Your task to perform on an android device: Open calendar and show me the fourth week of next month Image 0: 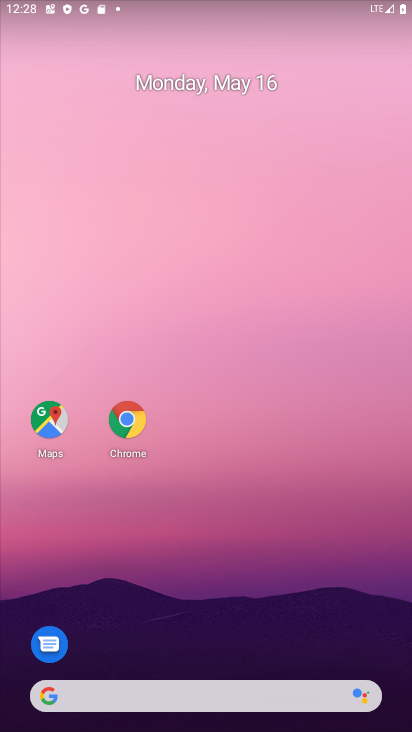
Step 0: drag from (187, 648) to (256, 180)
Your task to perform on an android device: Open calendar and show me the fourth week of next month Image 1: 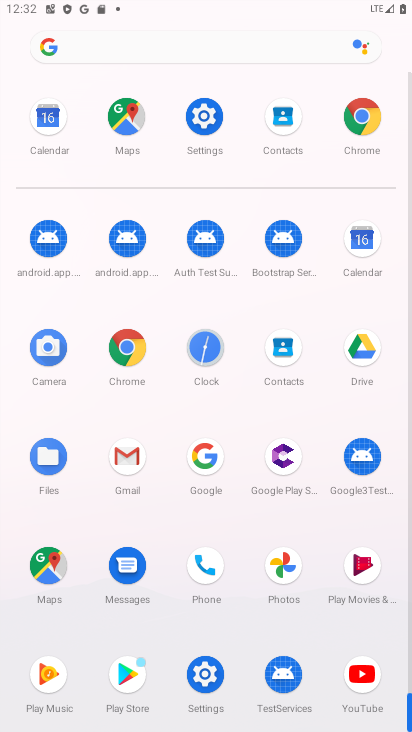
Step 1: click (366, 232)
Your task to perform on an android device: Open calendar and show me the fourth week of next month Image 2: 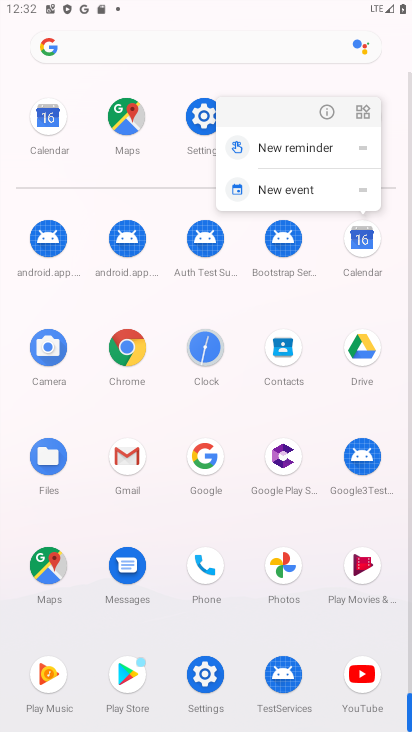
Step 2: click (329, 103)
Your task to perform on an android device: Open calendar and show me the fourth week of next month Image 3: 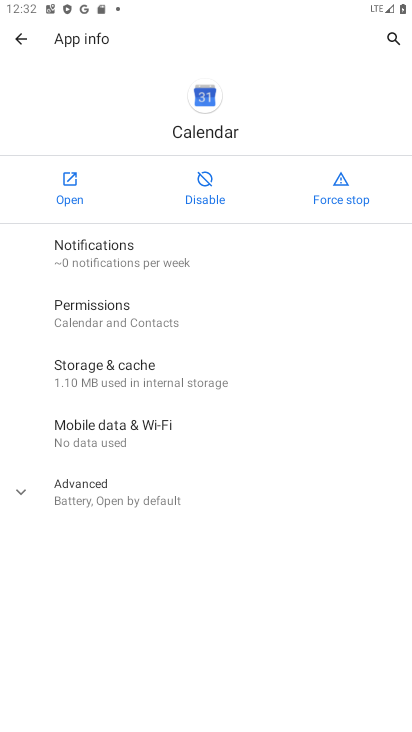
Step 3: click (59, 190)
Your task to perform on an android device: Open calendar and show me the fourth week of next month Image 4: 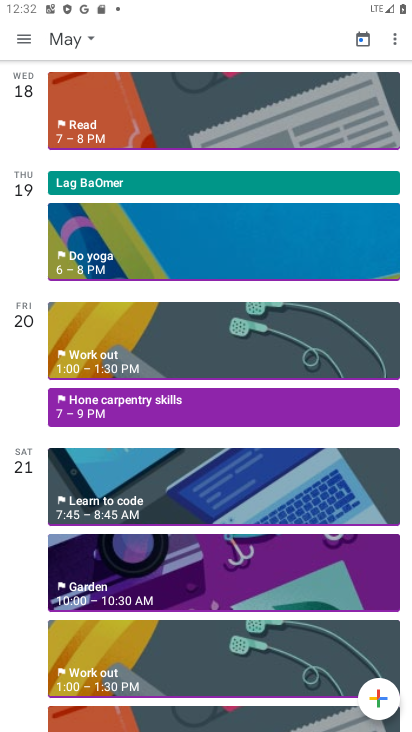
Step 4: click (83, 30)
Your task to perform on an android device: Open calendar and show me the fourth week of next month Image 5: 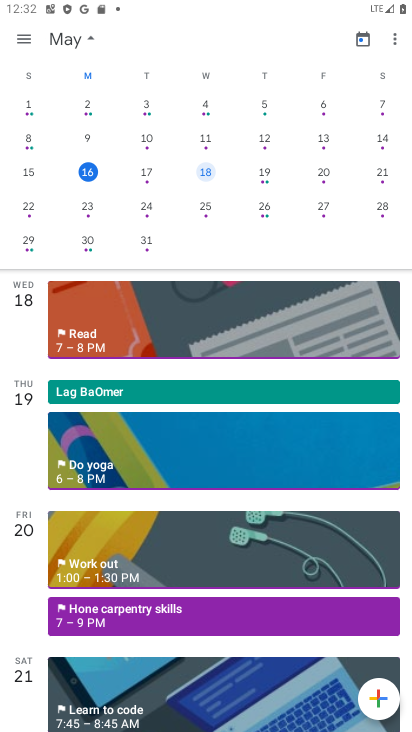
Step 5: drag from (382, 111) to (161, 140)
Your task to perform on an android device: Open calendar and show me the fourth week of next month Image 6: 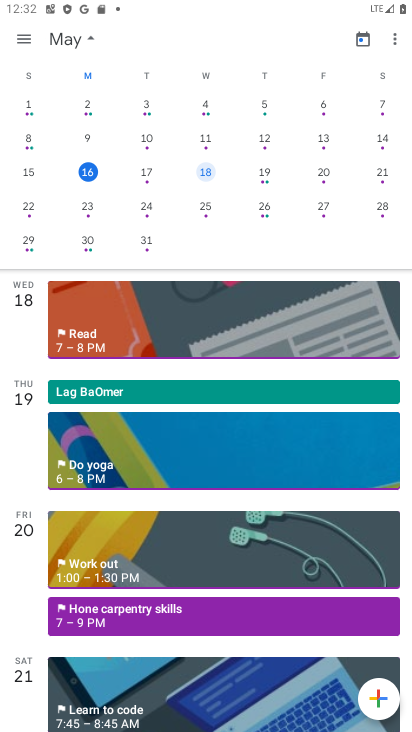
Step 6: drag from (380, 136) to (37, 166)
Your task to perform on an android device: Open calendar and show me the fourth week of next month Image 7: 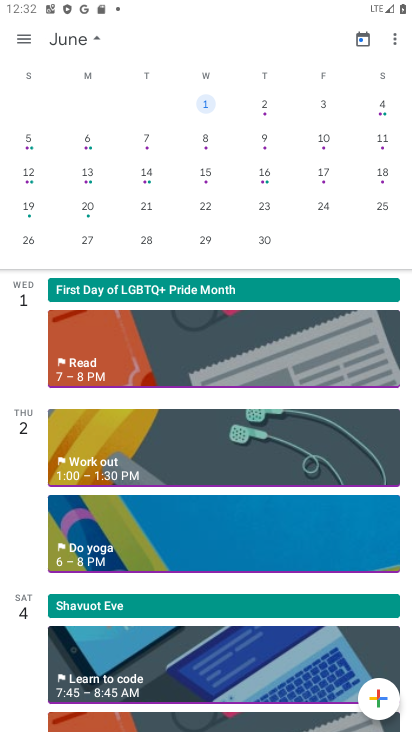
Step 7: drag from (387, 182) to (78, 256)
Your task to perform on an android device: Open calendar and show me the fourth week of next month Image 8: 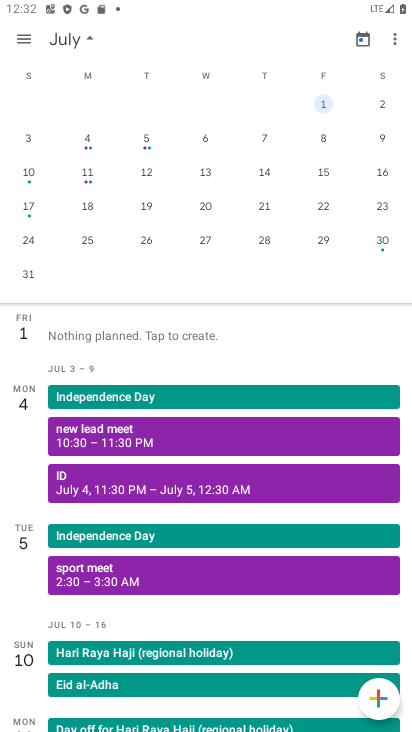
Step 8: click (265, 208)
Your task to perform on an android device: Open calendar and show me the fourth week of next month Image 9: 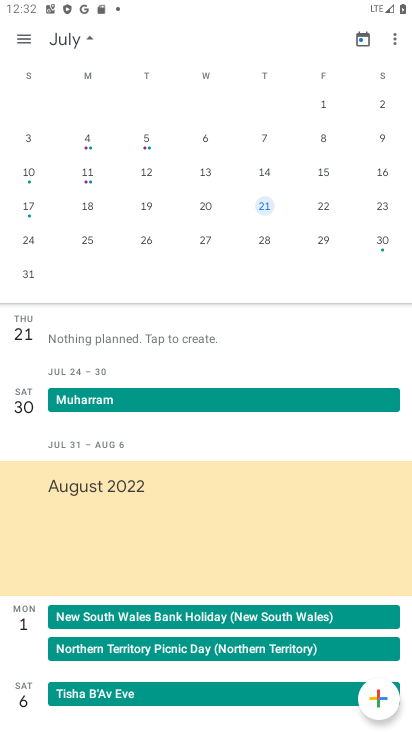
Step 9: task complete